Your task to perform on an android device: Do I have any events today? Image 0: 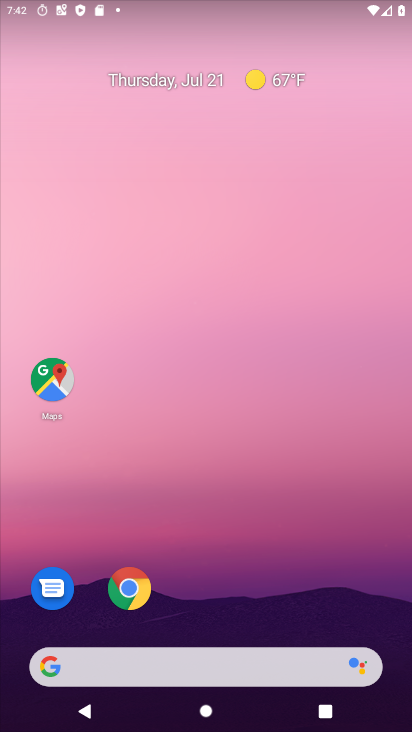
Step 0: drag from (244, 664) to (257, 345)
Your task to perform on an android device: Do I have any events today? Image 1: 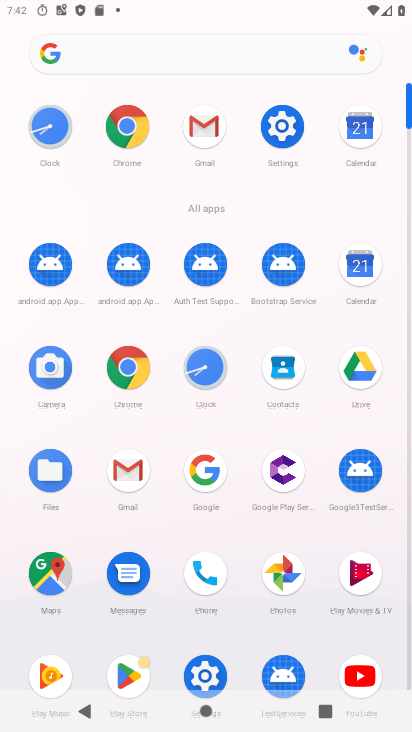
Step 1: click (349, 263)
Your task to perform on an android device: Do I have any events today? Image 2: 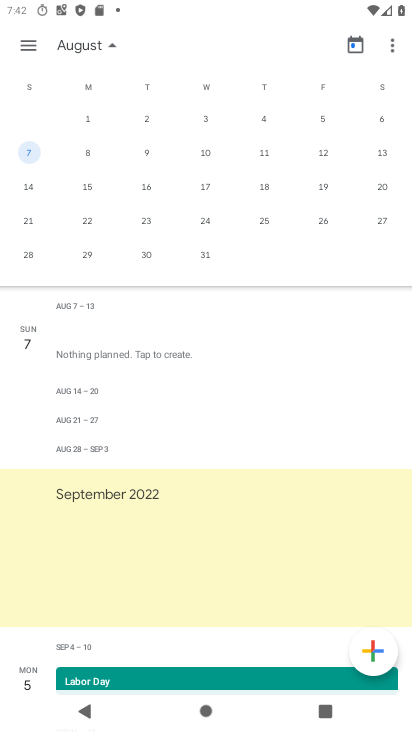
Step 2: drag from (14, 189) to (366, 187)
Your task to perform on an android device: Do I have any events today? Image 3: 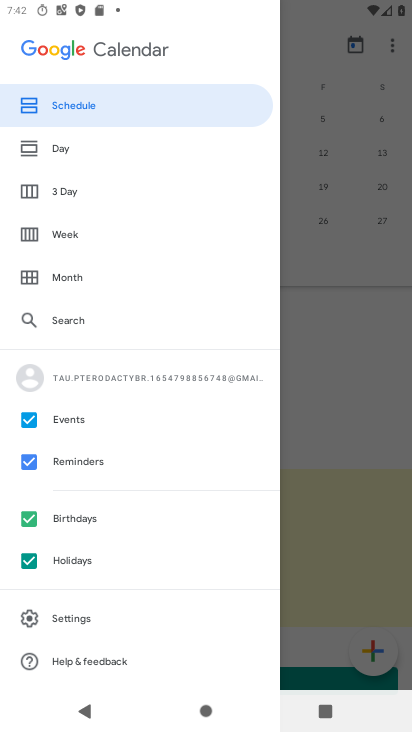
Step 3: click (155, 110)
Your task to perform on an android device: Do I have any events today? Image 4: 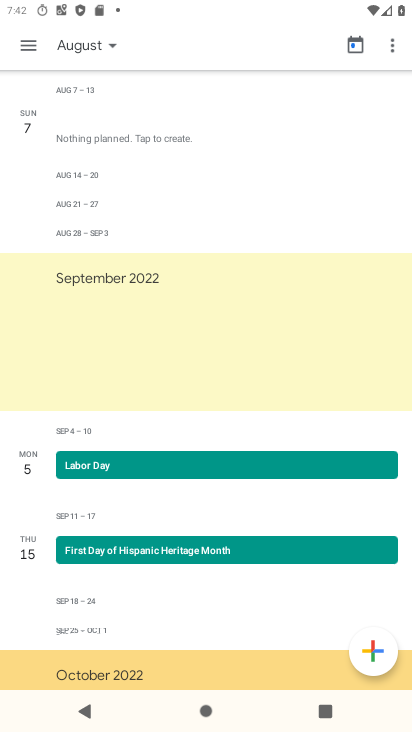
Step 4: click (93, 27)
Your task to perform on an android device: Do I have any events today? Image 5: 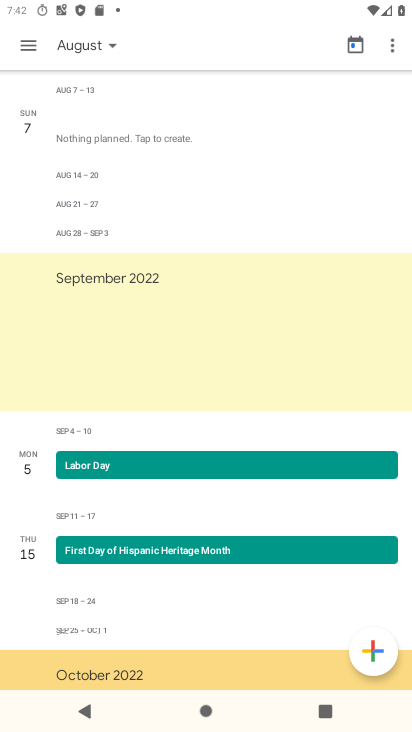
Step 5: click (93, 40)
Your task to perform on an android device: Do I have any events today? Image 6: 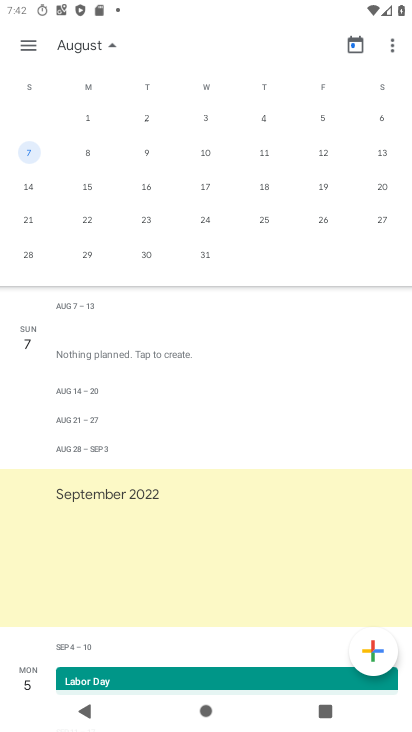
Step 6: task complete